Your task to perform on an android device: Open the web browser Image 0: 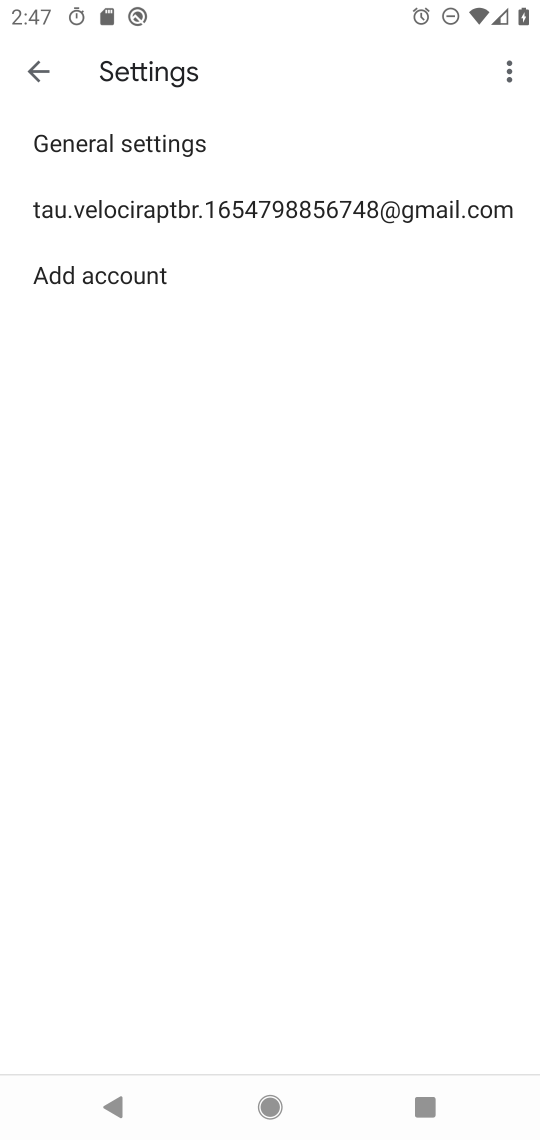
Step 0: press home button
Your task to perform on an android device: Open the web browser Image 1: 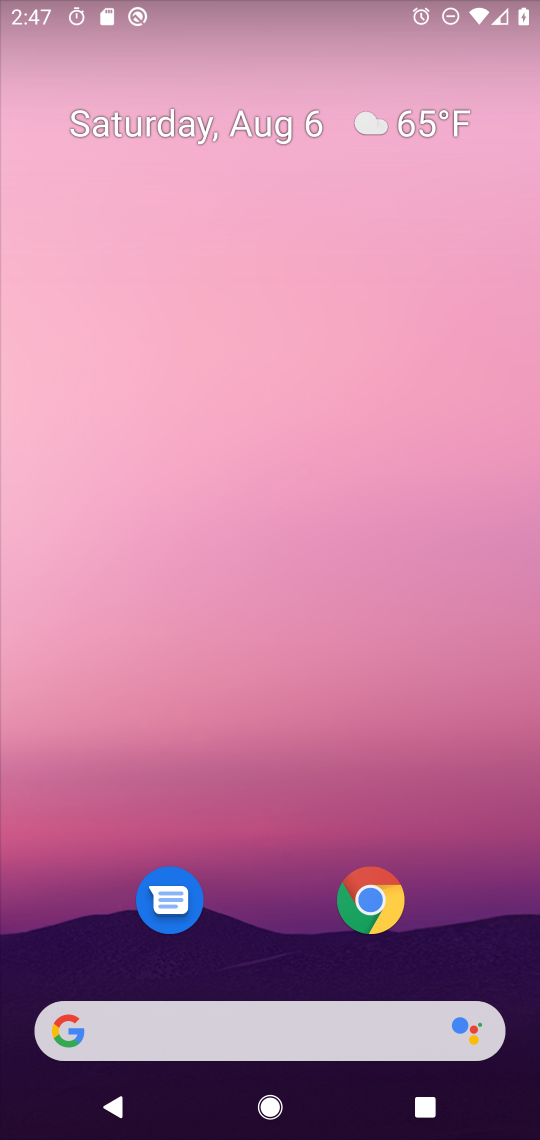
Step 1: drag from (267, 968) to (274, 226)
Your task to perform on an android device: Open the web browser Image 2: 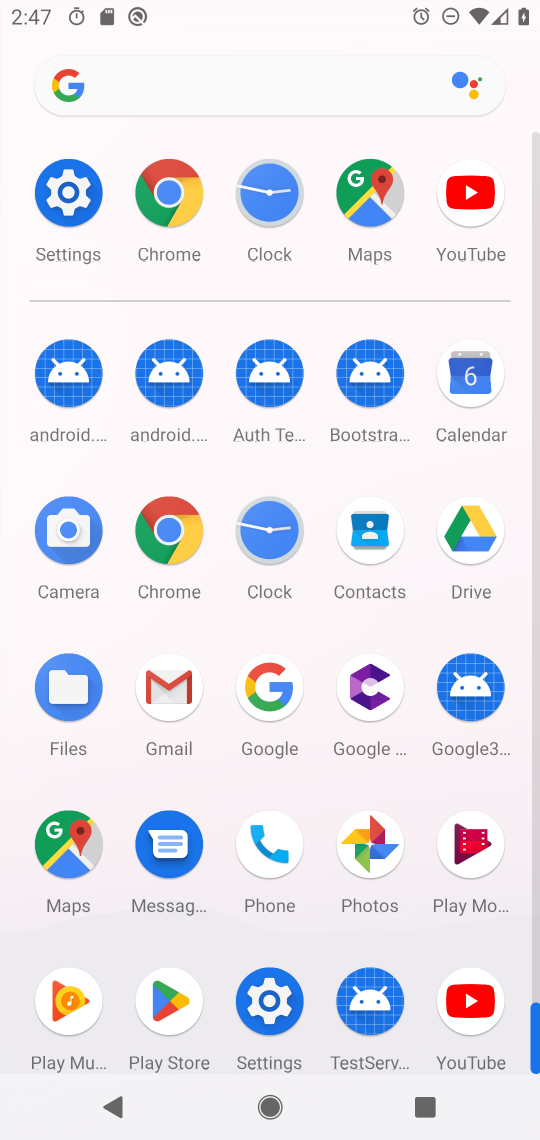
Step 2: click (163, 541)
Your task to perform on an android device: Open the web browser Image 3: 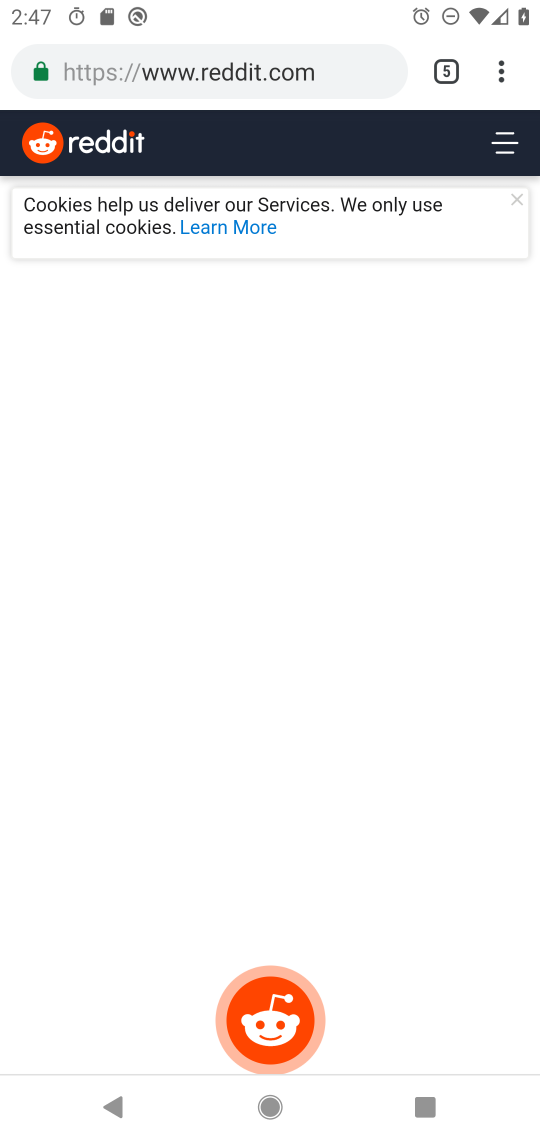
Step 3: task complete